Your task to perform on an android device: Open ESPN.com Image 0: 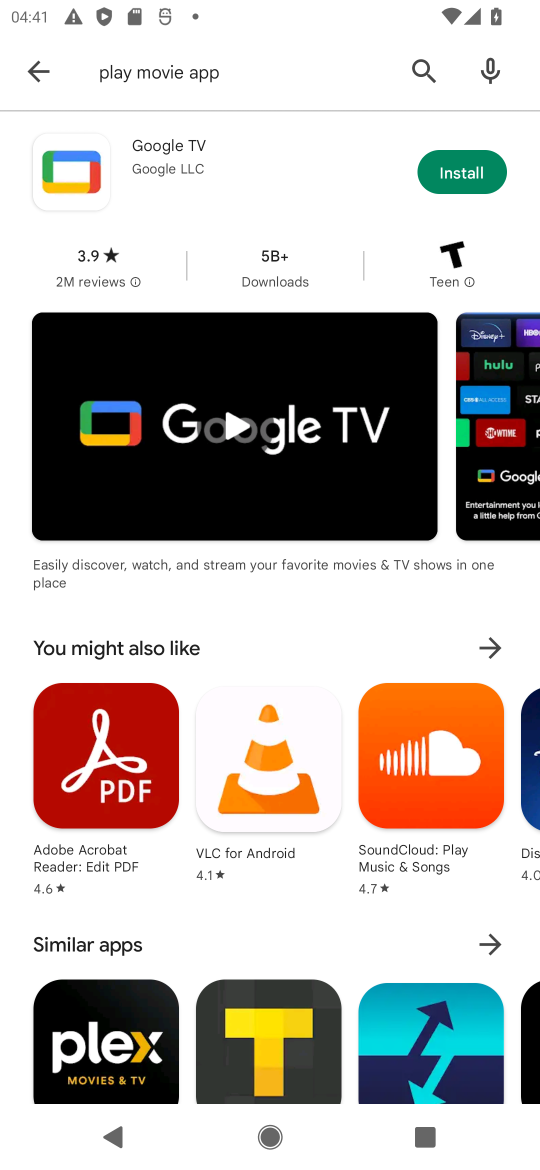
Step 0: press home button
Your task to perform on an android device: Open ESPN.com Image 1: 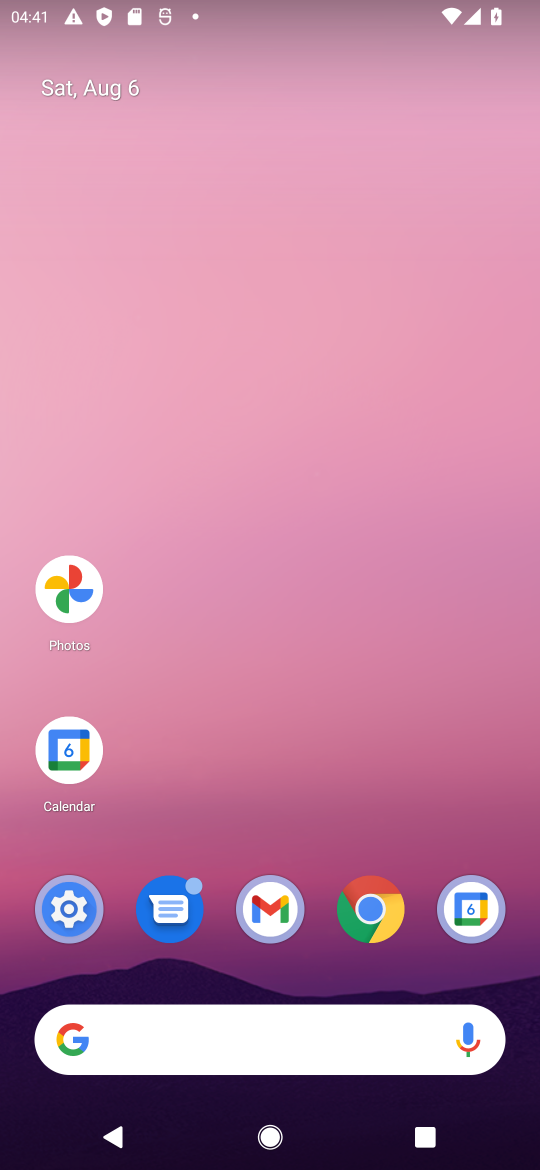
Step 1: click (376, 914)
Your task to perform on an android device: Open ESPN.com Image 2: 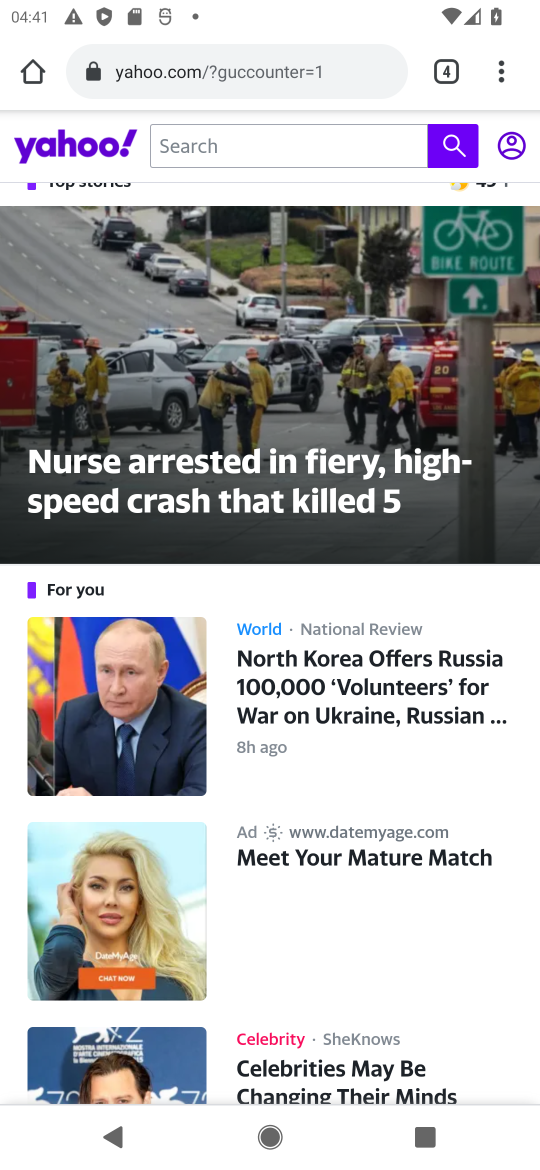
Step 2: click (500, 63)
Your task to perform on an android device: Open ESPN.com Image 3: 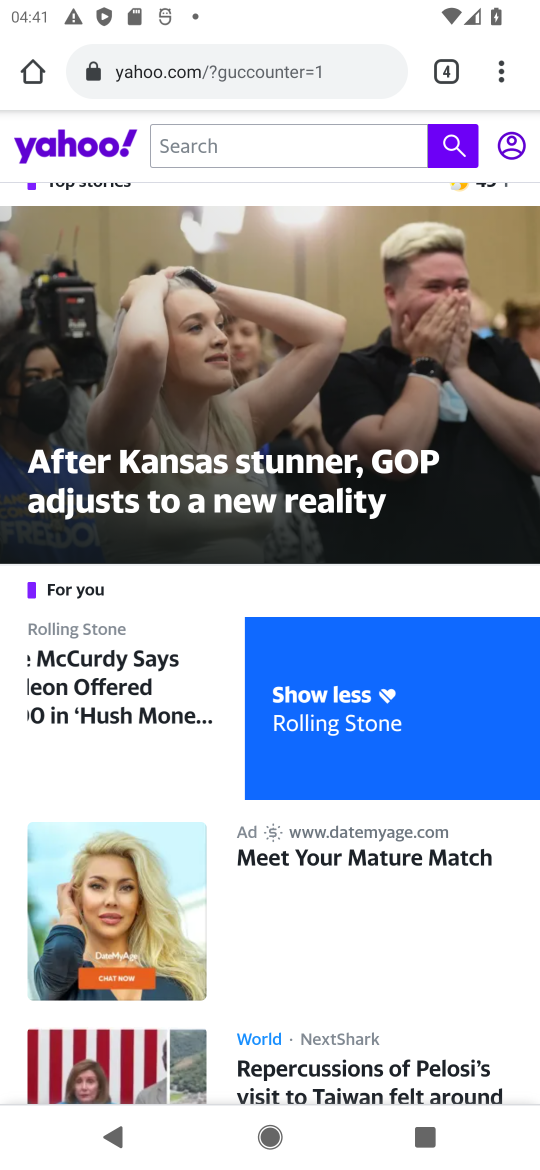
Step 3: click (499, 81)
Your task to perform on an android device: Open ESPN.com Image 4: 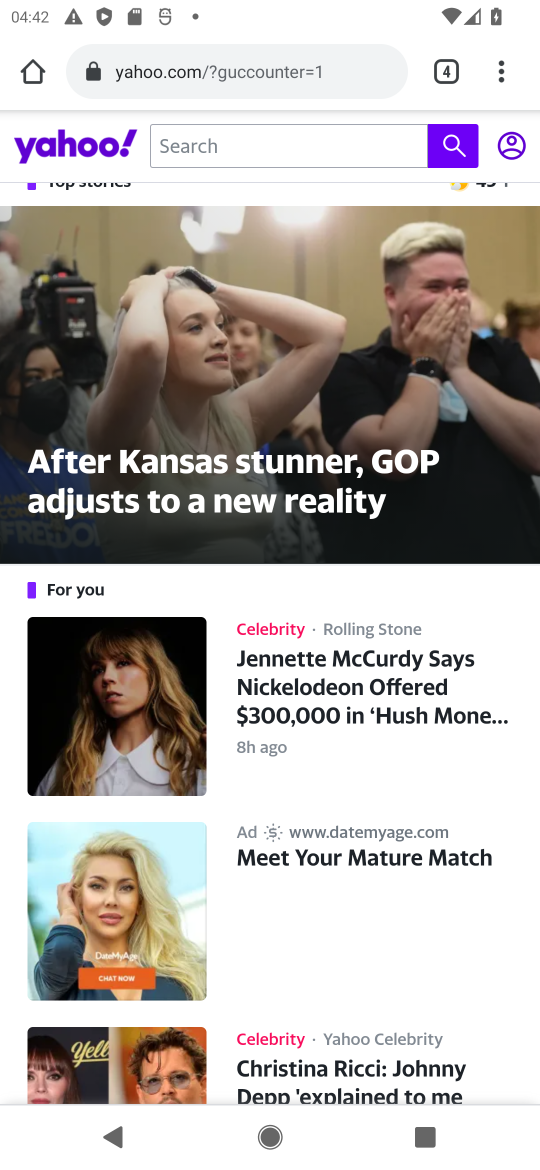
Step 4: click (506, 49)
Your task to perform on an android device: Open ESPN.com Image 5: 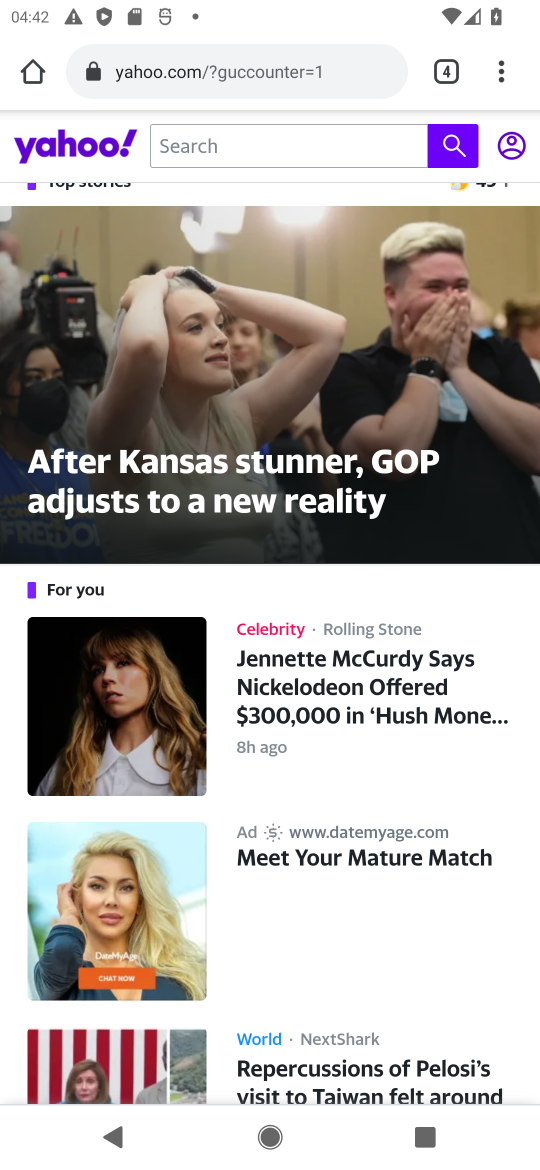
Step 5: click (525, 73)
Your task to perform on an android device: Open ESPN.com Image 6: 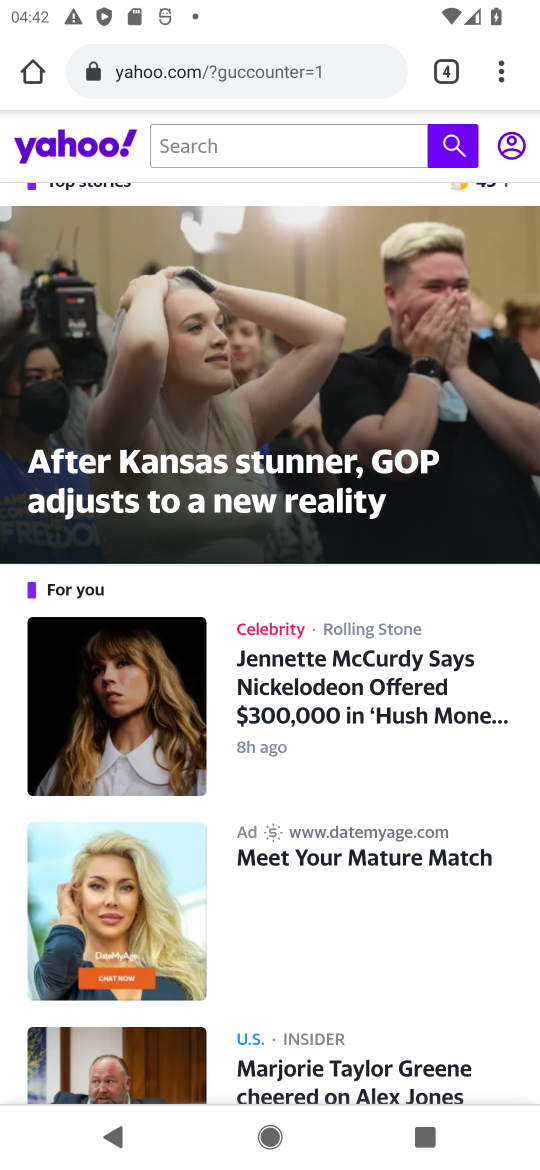
Step 6: click (490, 73)
Your task to perform on an android device: Open ESPN.com Image 7: 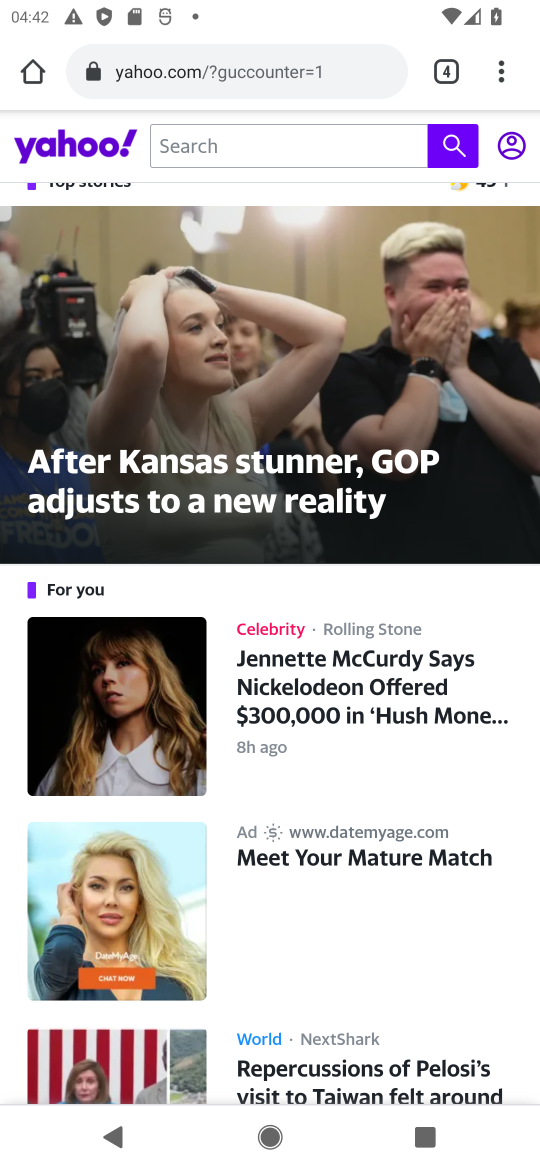
Step 7: click (504, 70)
Your task to perform on an android device: Open ESPN.com Image 8: 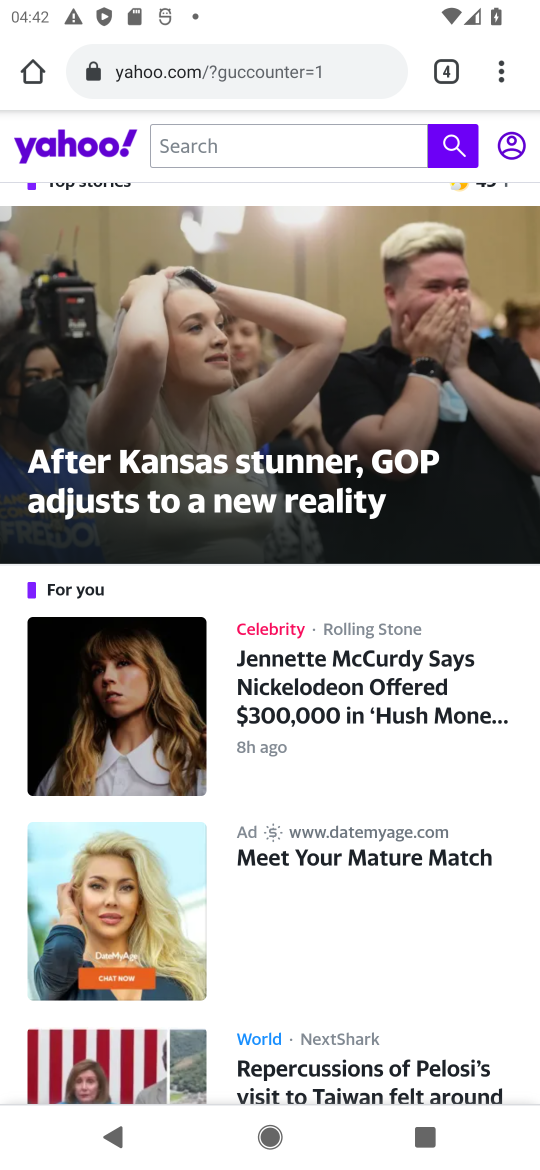
Step 8: click (494, 77)
Your task to perform on an android device: Open ESPN.com Image 9: 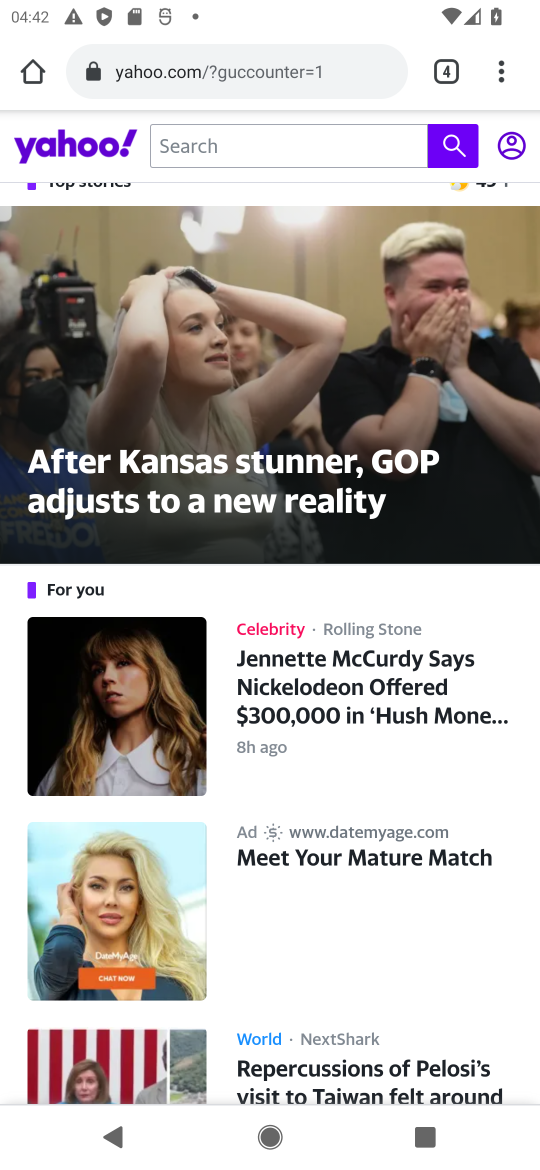
Step 9: click (474, 57)
Your task to perform on an android device: Open ESPN.com Image 10: 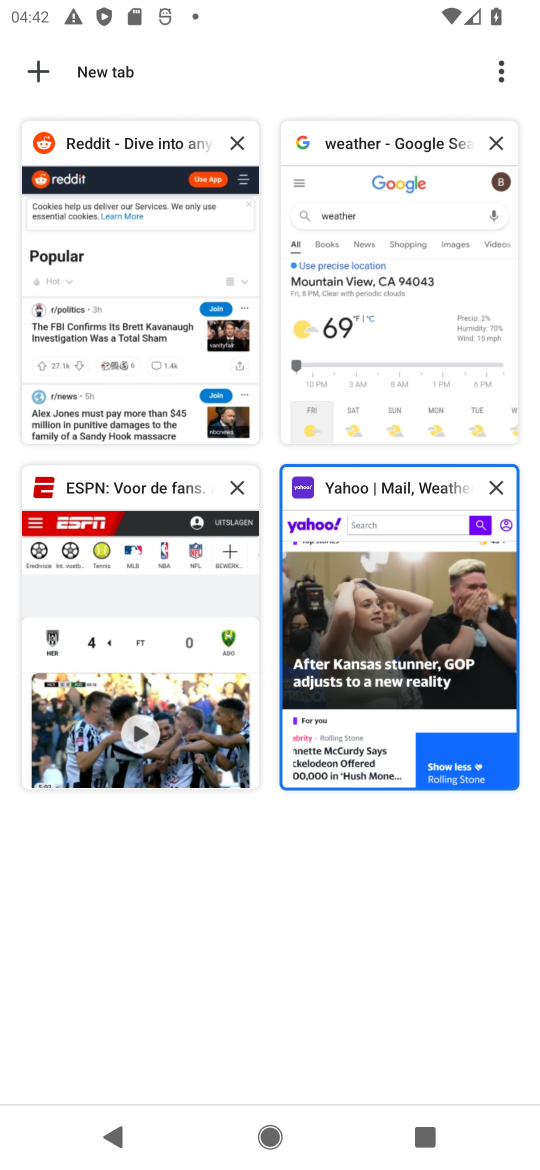
Step 10: click (496, 77)
Your task to perform on an android device: Open ESPN.com Image 11: 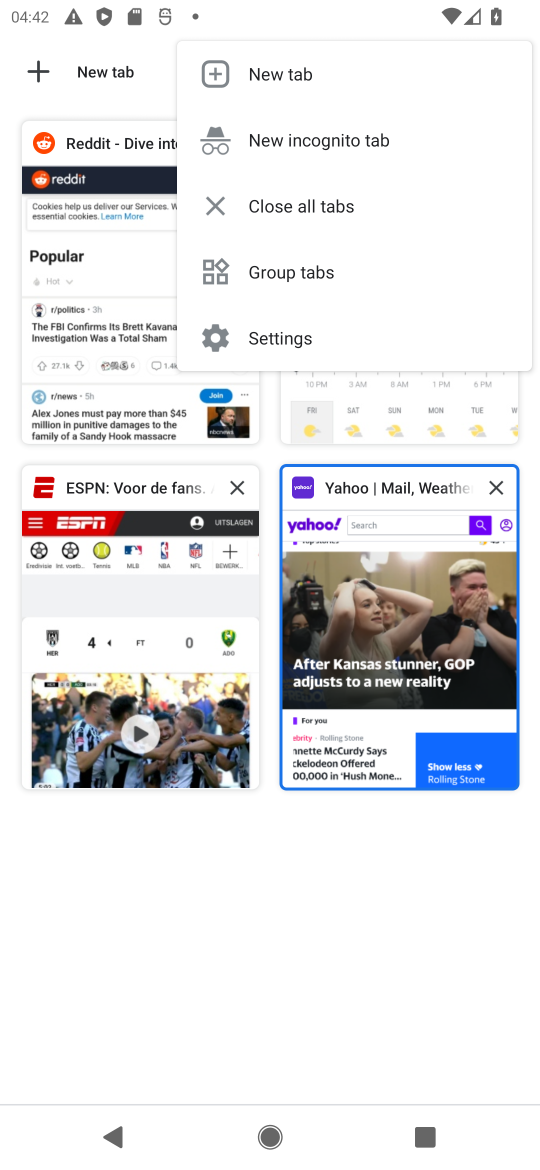
Step 11: click (288, 68)
Your task to perform on an android device: Open ESPN.com Image 12: 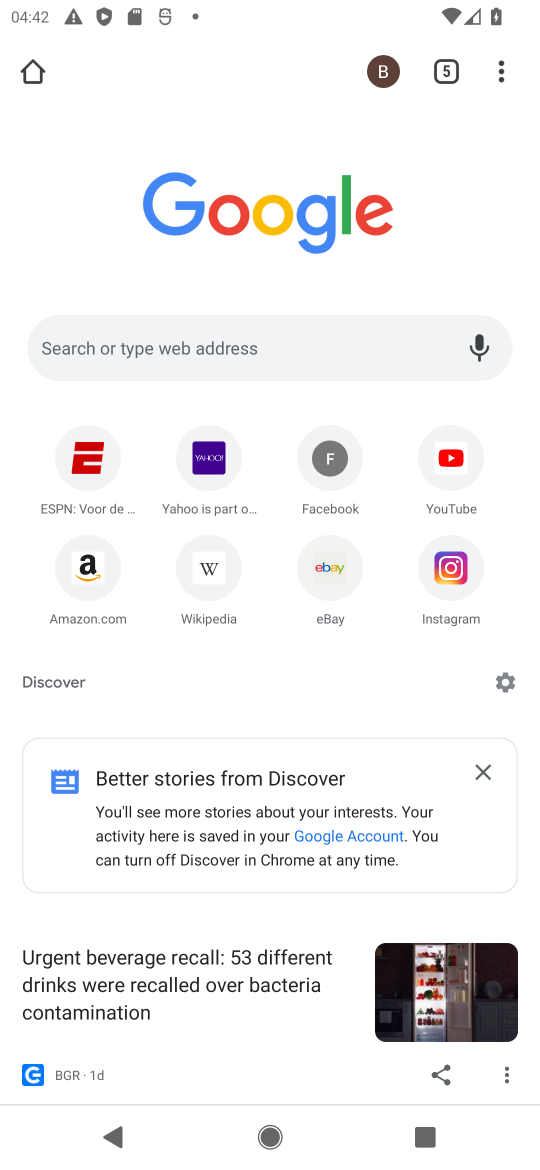
Step 12: click (90, 461)
Your task to perform on an android device: Open ESPN.com Image 13: 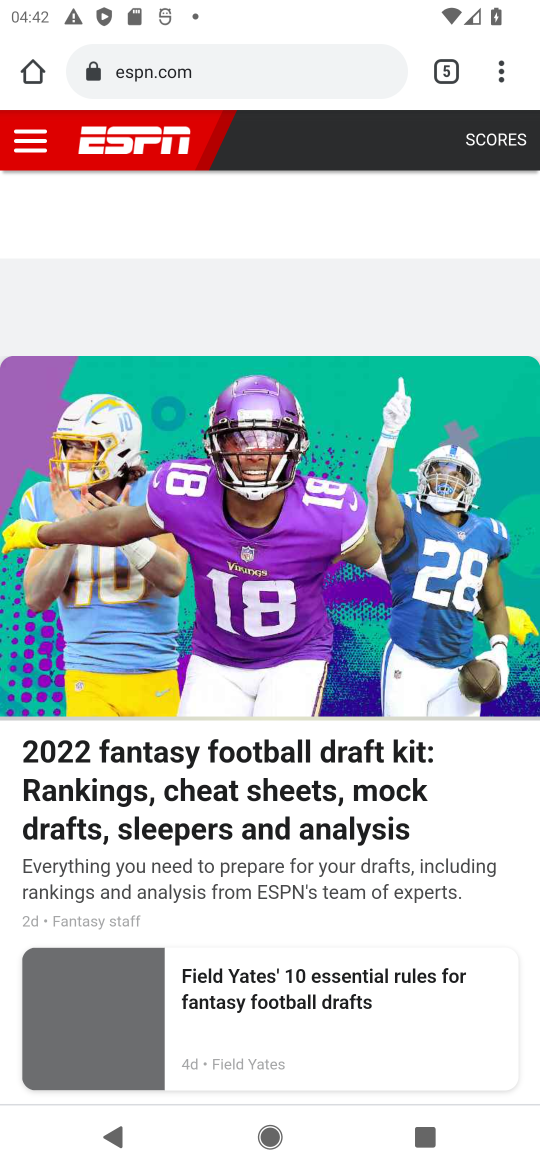
Step 13: task complete